Your task to perform on an android device: turn on translation in the chrome app Image 0: 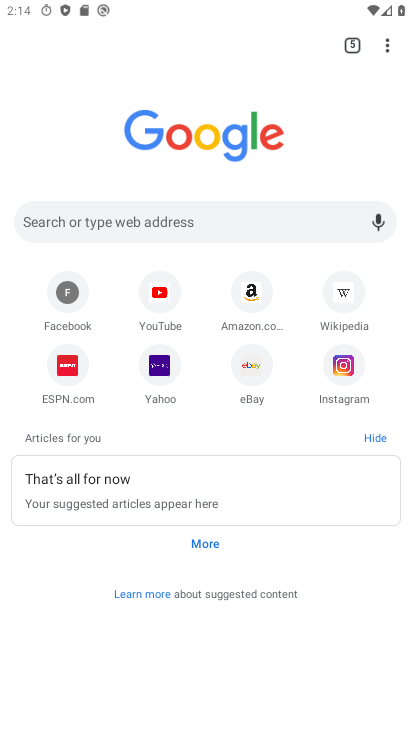
Step 0: press home button
Your task to perform on an android device: turn on translation in the chrome app Image 1: 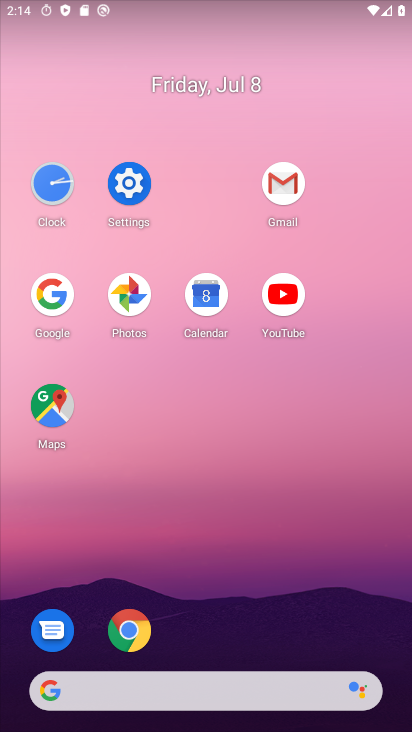
Step 1: click (124, 618)
Your task to perform on an android device: turn on translation in the chrome app Image 2: 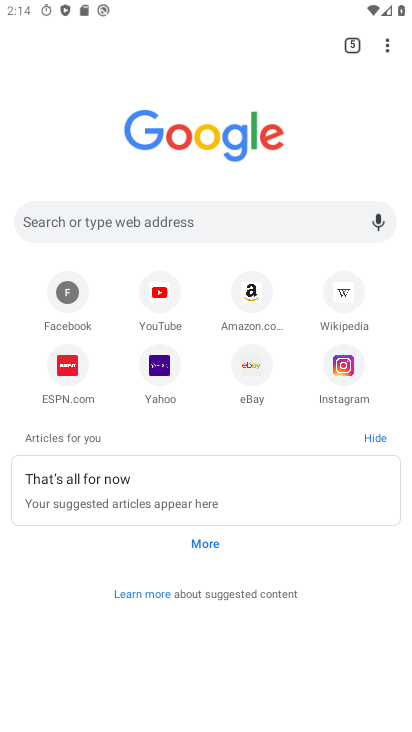
Step 2: click (390, 54)
Your task to perform on an android device: turn on translation in the chrome app Image 3: 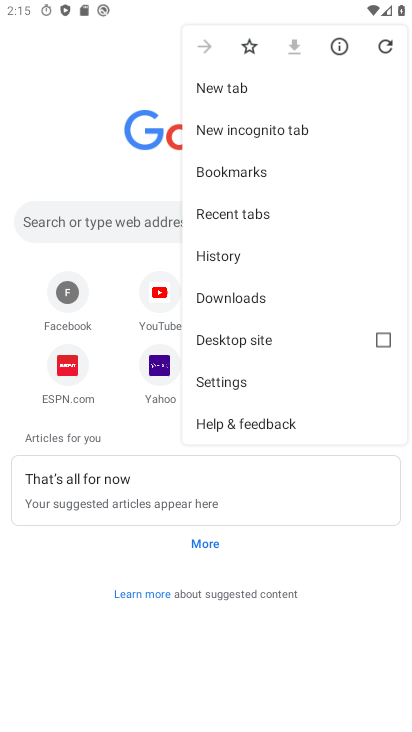
Step 3: click (276, 384)
Your task to perform on an android device: turn on translation in the chrome app Image 4: 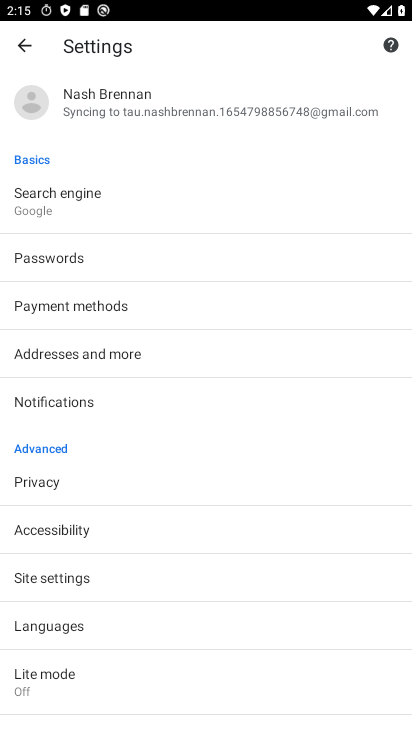
Step 4: click (117, 625)
Your task to perform on an android device: turn on translation in the chrome app Image 5: 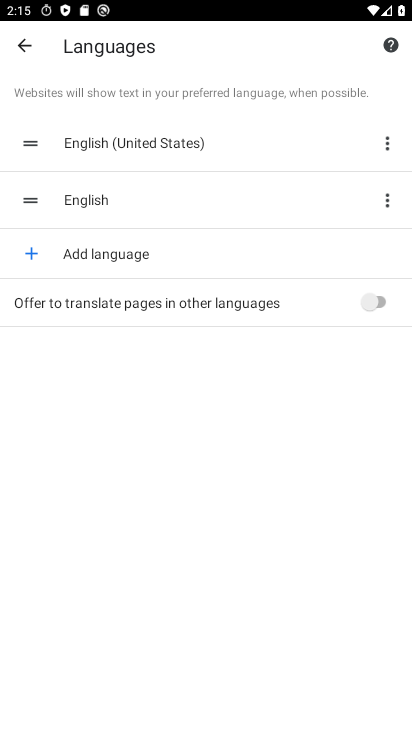
Step 5: click (376, 296)
Your task to perform on an android device: turn on translation in the chrome app Image 6: 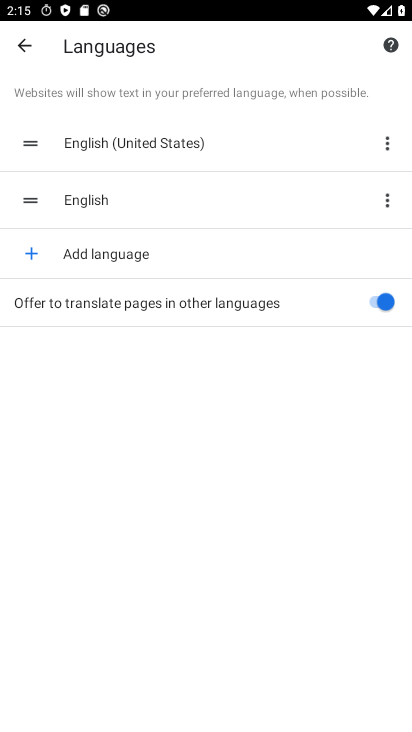
Step 6: task complete